Your task to perform on an android device: open app "WhatsApp Messenger" (install if not already installed) and enter user name: "cartons@outlook.com" and password: "approximated" Image 0: 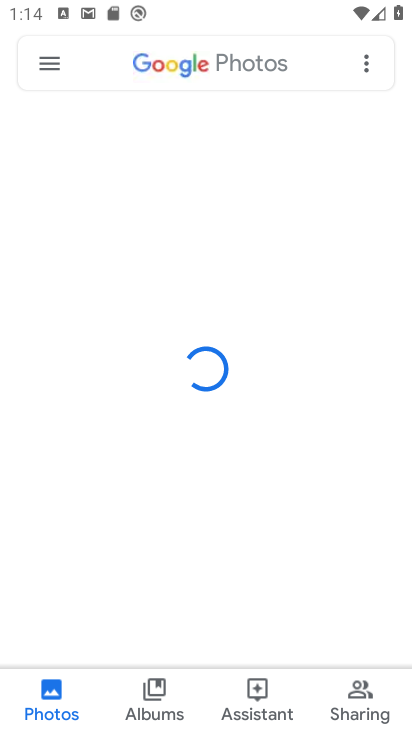
Step 0: press home button
Your task to perform on an android device: open app "WhatsApp Messenger" (install if not already installed) and enter user name: "cartons@outlook.com" and password: "approximated" Image 1: 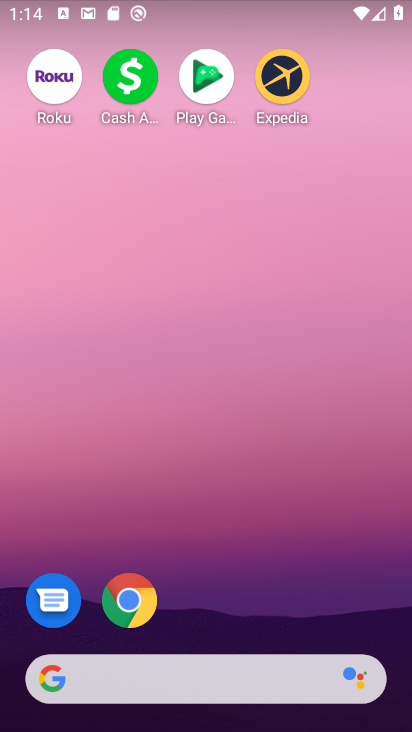
Step 1: drag from (280, 630) to (225, 65)
Your task to perform on an android device: open app "WhatsApp Messenger" (install if not already installed) and enter user name: "cartons@outlook.com" and password: "approximated" Image 2: 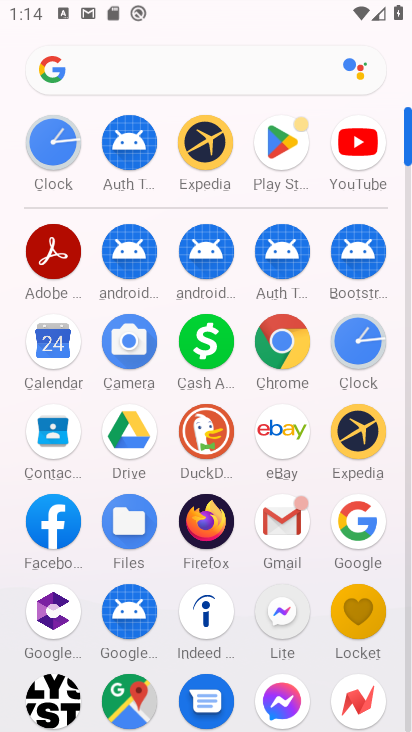
Step 2: click (277, 125)
Your task to perform on an android device: open app "WhatsApp Messenger" (install if not already installed) and enter user name: "cartons@outlook.com" and password: "approximated" Image 3: 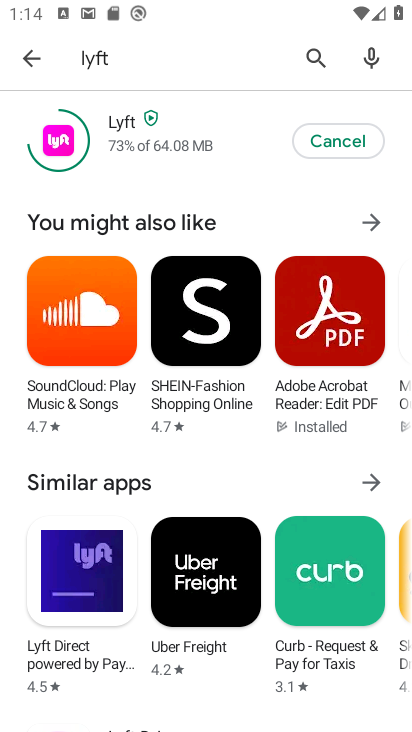
Step 3: click (304, 76)
Your task to perform on an android device: open app "WhatsApp Messenger" (install if not already installed) and enter user name: "cartons@outlook.com" and password: "approximated" Image 4: 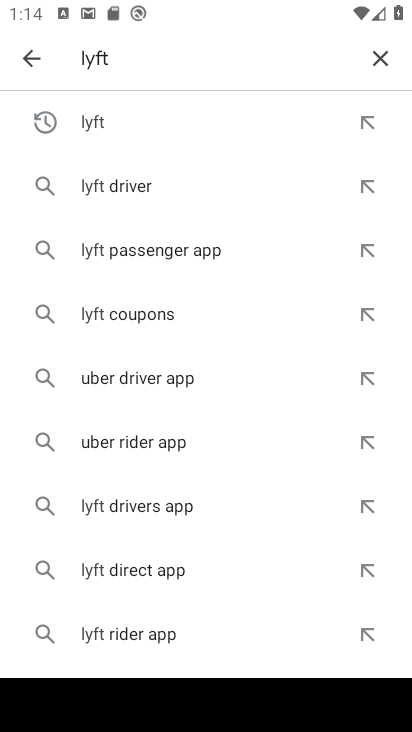
Step 4: click (377, 62)
Your task to perform on an android device: open app "WhatsApp Messenger" (install if not already installed) and enter user name: "cartons@outlook.com" and password: "approximated" Image 5: 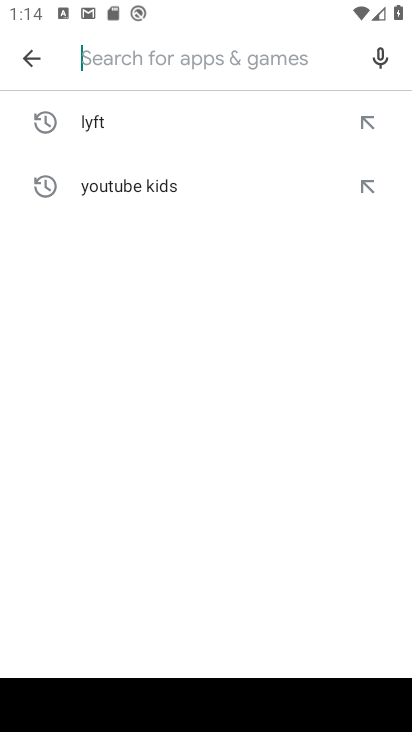
Step 5: type "whatapp"
Your task to perform on an android device: open app "WhatsApp Messenger" (install if not already installed) and enter user name: "cartons@outlook.com" and password: "approximated" Image 6: 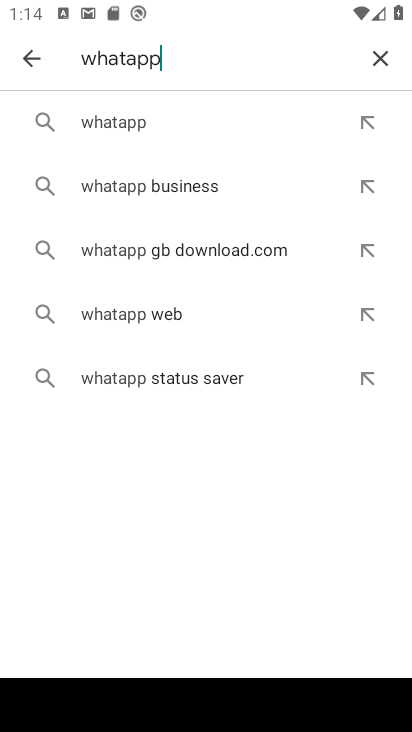
Step 6: click (252, 140)
Your task to perform on an android device: open app "WhatsApp Messenger" (install if not already installed) and enter user name: "cartons@outlook.com" and password: "approximated" Image 7: 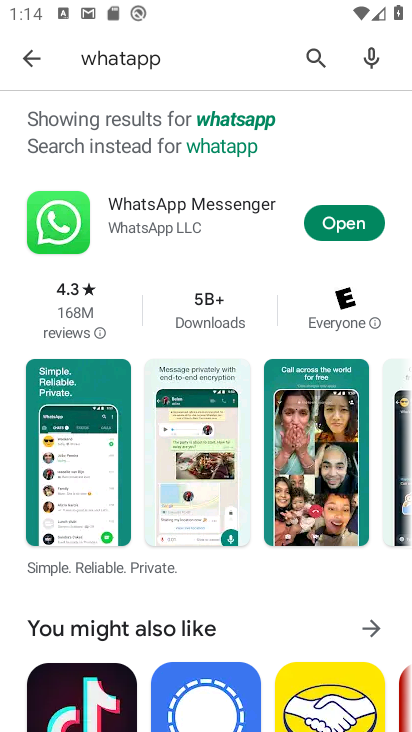
Step 7: click (350, 207)
Your task to perform on an android device: open app "WhatsApp Messenger" (install if not already installed) and enter user name: "cartons@outlook.com" and password: "approximated" Image 8: 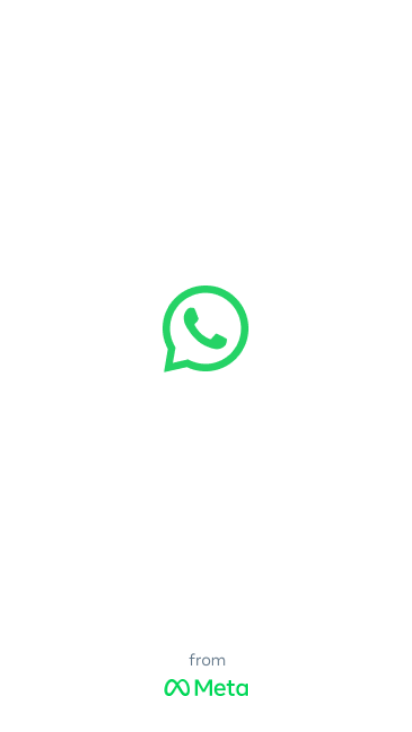
Step 8: task complete